Your task to perform on an android device: toggle translation in the chrome app Image 0: 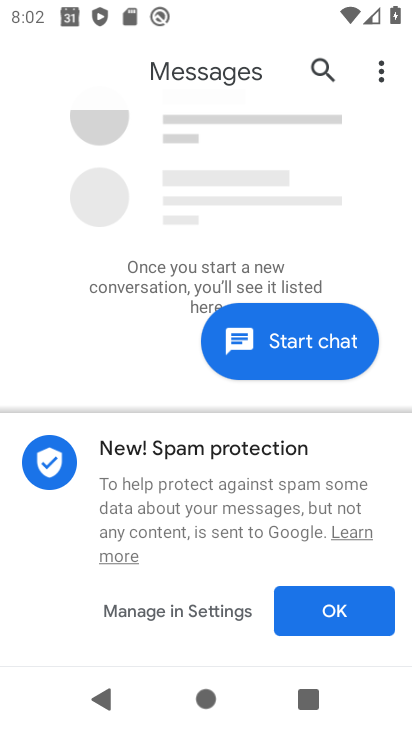
Step 0: press home button
Your task to perform on an android device: toggle translation in the chrome app Image 1: 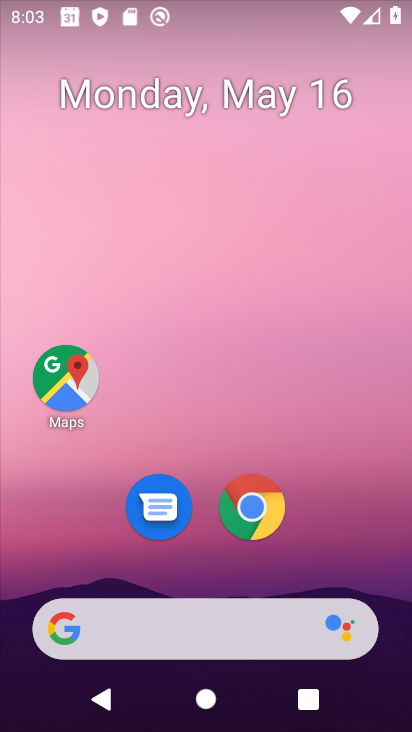
Step 1: click (246, 498)
Your task to perform on an android device: toggle translation in the chrome app Image 2: 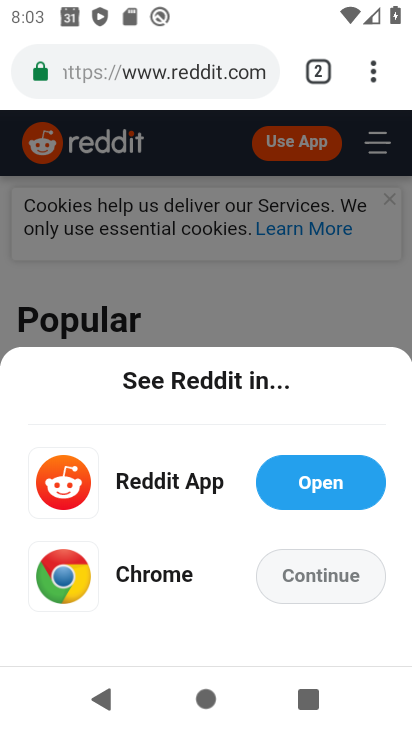
Step 2: drag from (376, 71) to (112, 505)
Your task to perform on an android device: toggle translation in the chrome app Image 3: 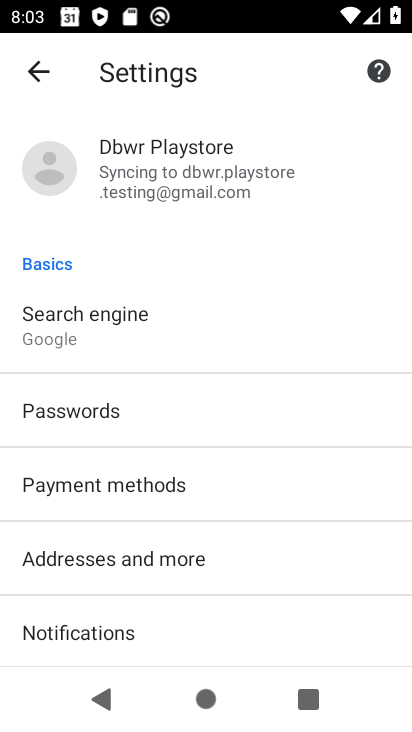
Step 3: drag from (273, 339) to (280, 181)
Your task to perform on an android device: toggle translation in the chrome app Image 4: 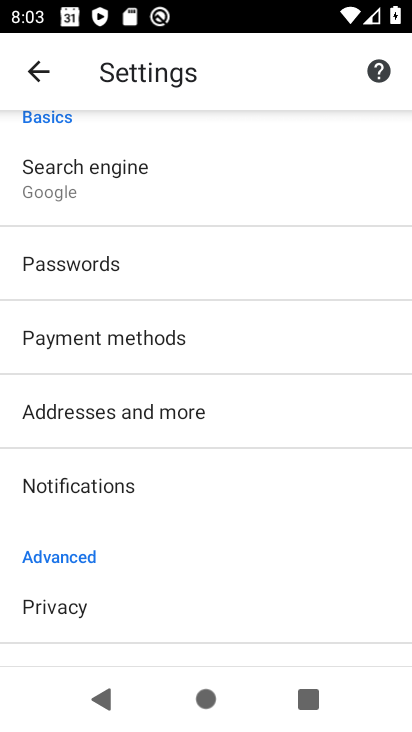
Step 4: drag from (278, 578) to (297, 175)
Your task to perform on an android device: toggle translation in the chrome app Image 5: 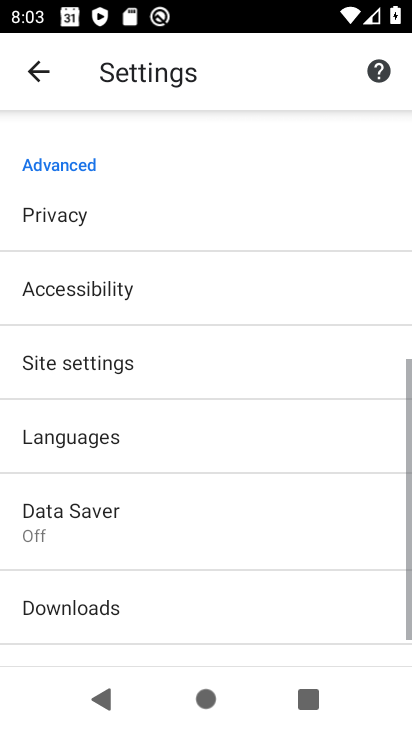
Step 5: drag from (262, 580) to (257, 240)
Your task to perform on an android device: toggle translation in the chrome app Image 6: 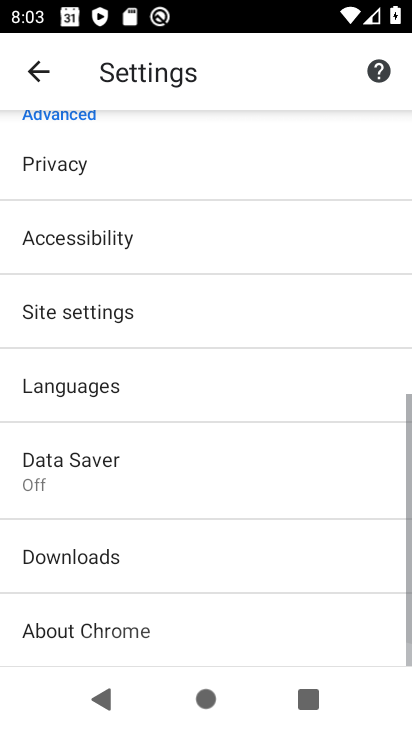
Step 6: drag from (239, 530) to (256, 205)
Your task to perform on an android device: toggle translation in the chrome app Image 7: 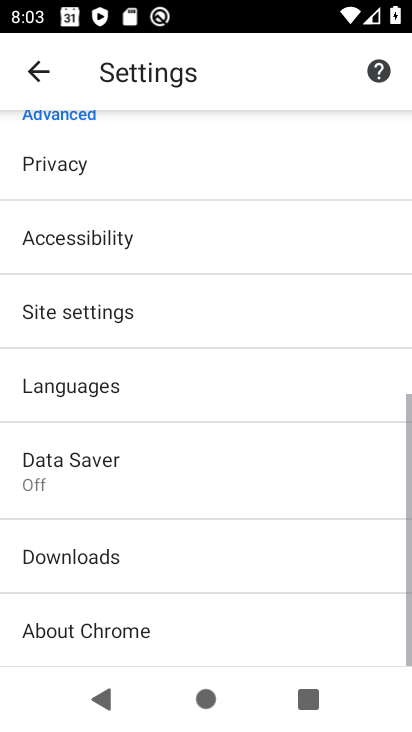
Step 7: click (73, 377)
Your task to perform on an android device: toggle translation in the chrome app Image 8: 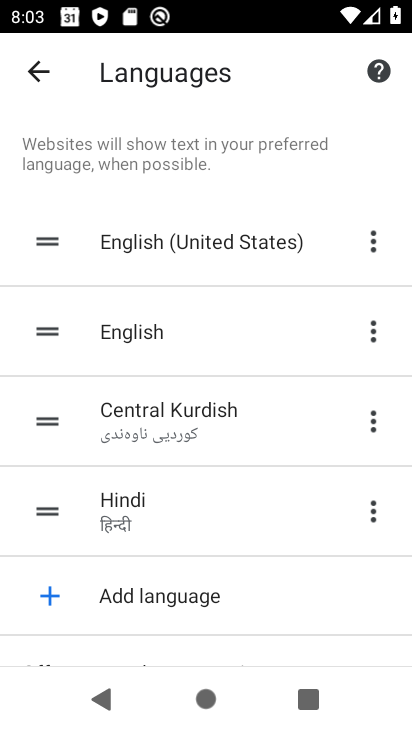
Step 8: drag from (327, 607) to (326, 185)
Your task to perform on an android device: toggle translation in the chrome app Image 9: 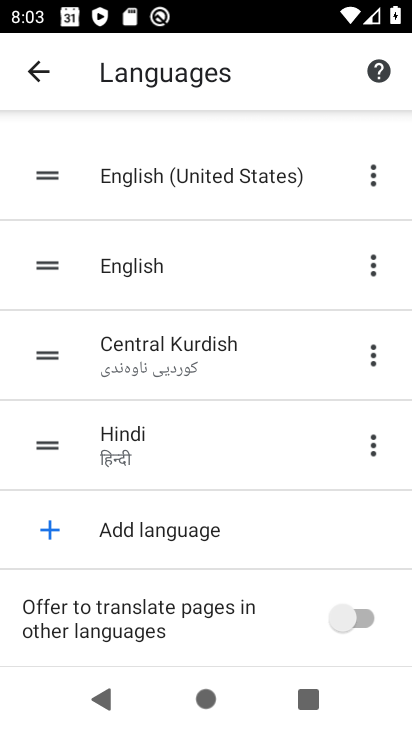
Step 9: click (362, 617)
Your task to perform on an android device: toggle translation in the chrome app Image 10: 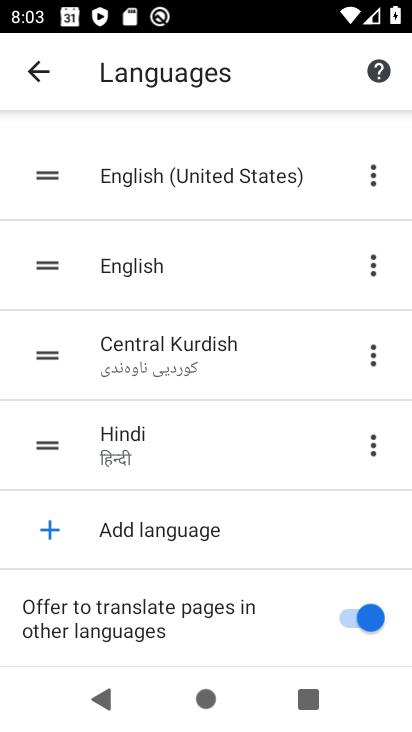
Step 10: task complete